Your task to perform on an android device: Go to Google Image 0: 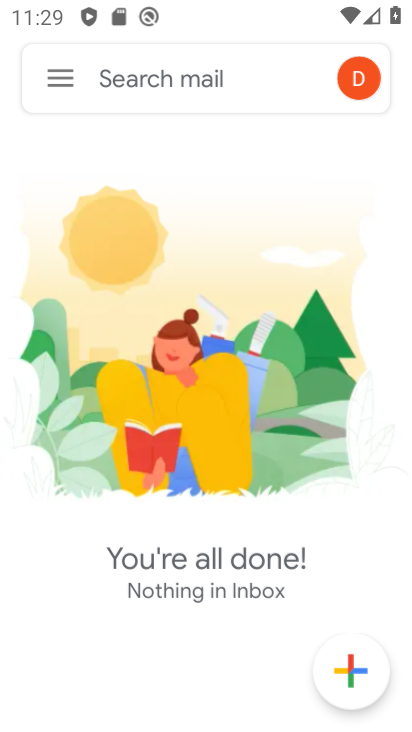
Step 0: press home button
Your task to perform on an android device: Go to Google Image 1: 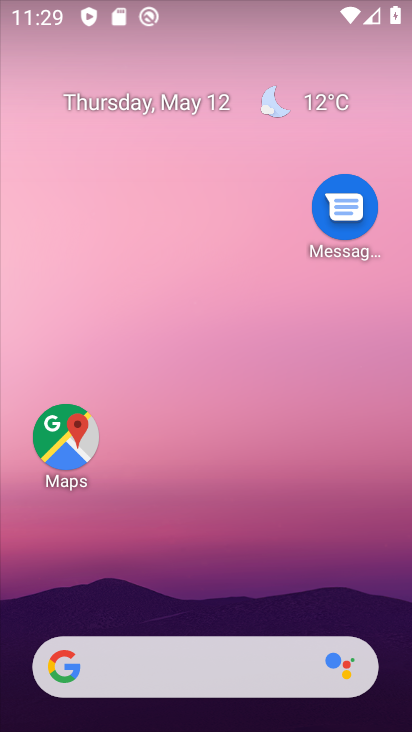
Step 1: drag from (237, 567) to (259, 10)
Your task to perform on an android device: Go to Google Image 2: 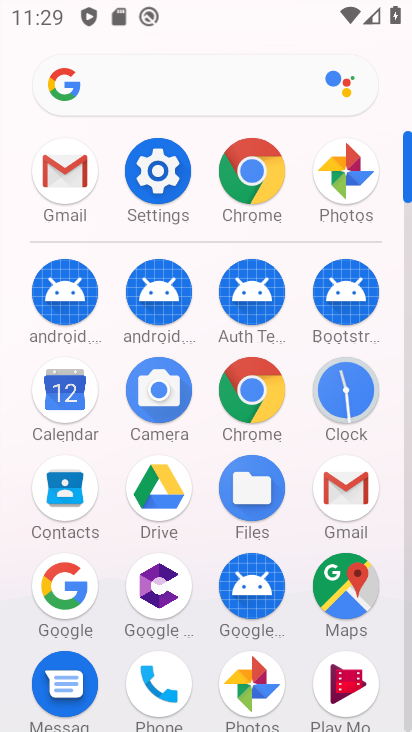
Step 2: click (64, 589)
Your task to perform on an android device: Go to Google Image 3: 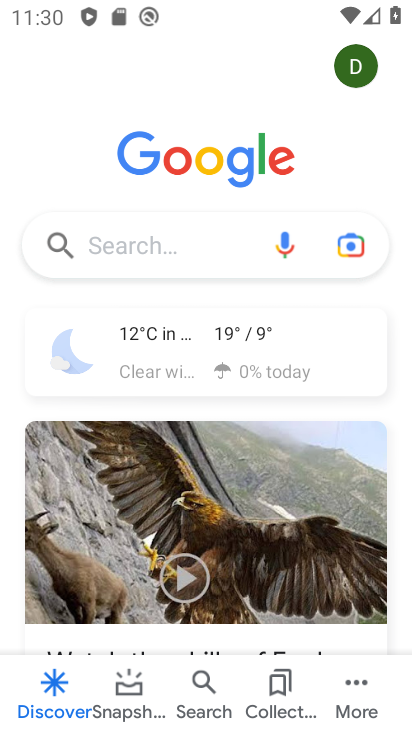
Step 3: task complete